Your task to perform on an android device: open app "Skype" (install if not already installed) Image 0: 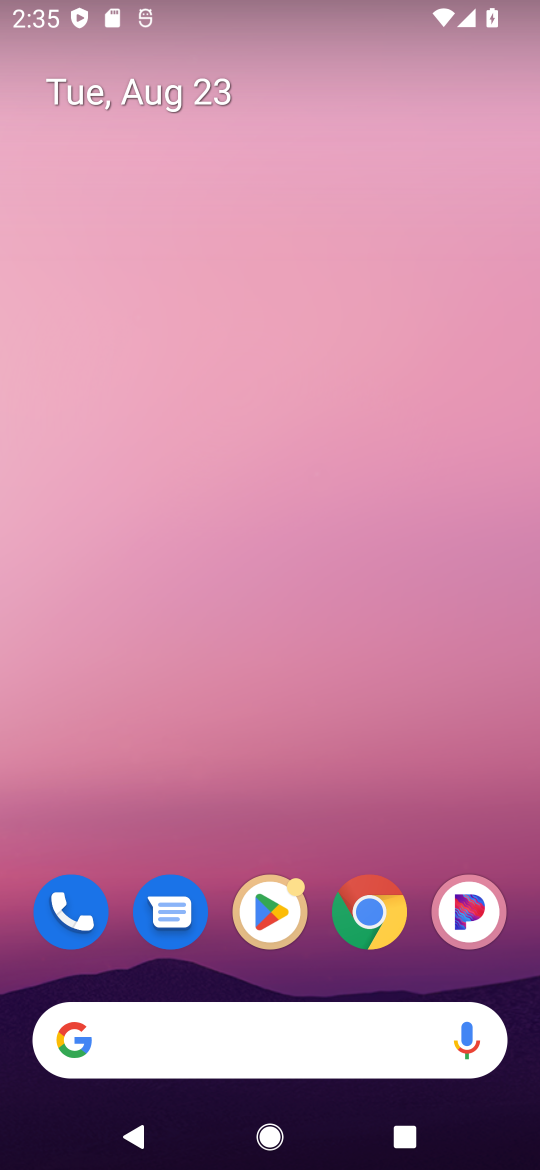
Step 0: drag from (182, 1071) to (250, 58)
Your task to perform on an android device: open app "Skype" (install if not already installed) Image 1: 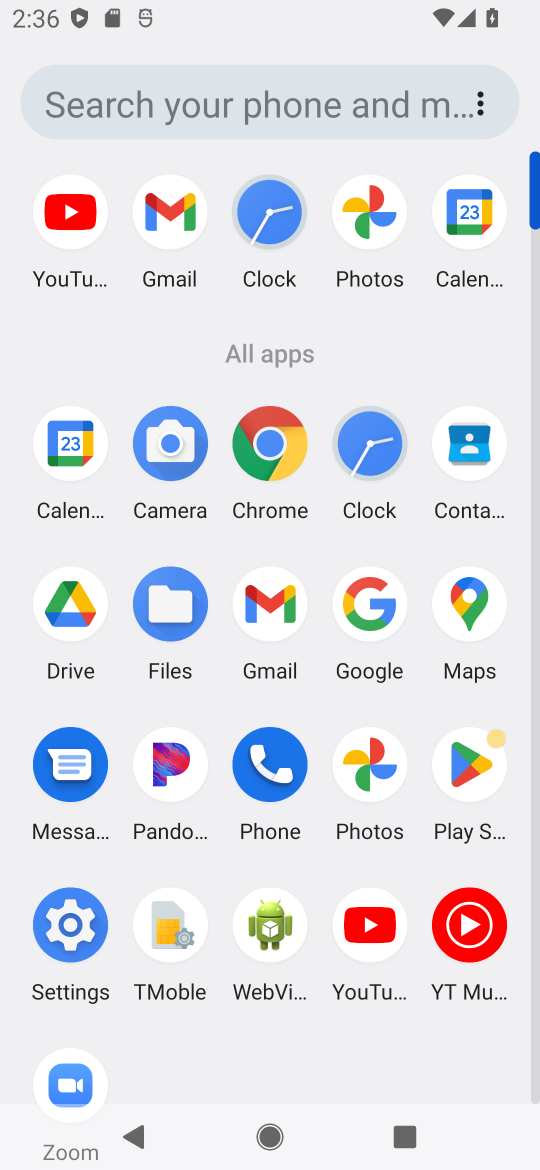
Step 1: click (468, 777)
Your task to perform on an android device: open app "Skype" (install if not already installed) Image 2: 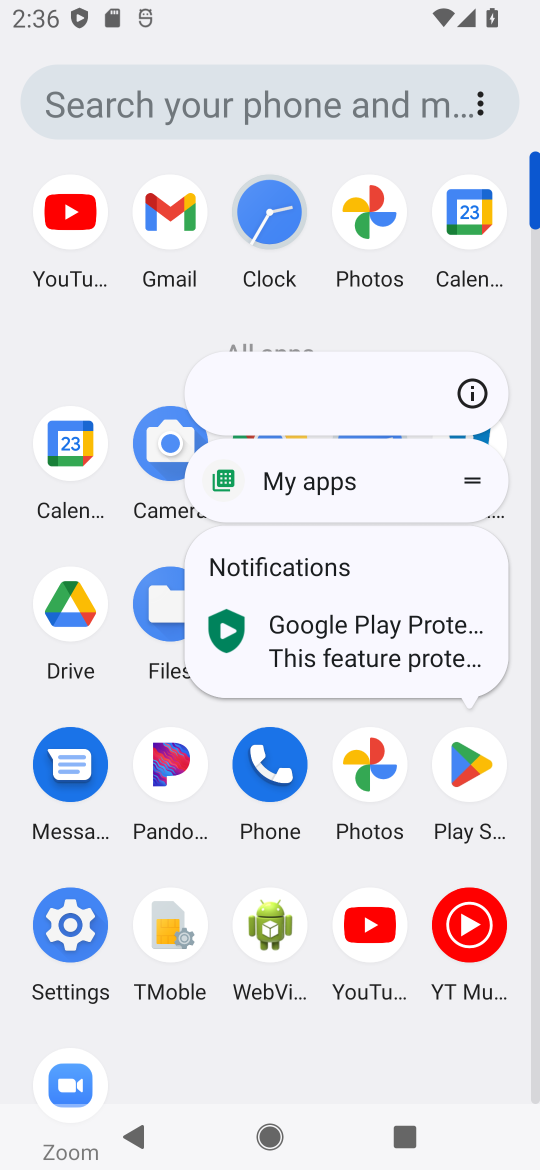
Step 2: click (468, 777)
Your task to perform on an android device: open app "Skype" (install if not already installed) Image 3: 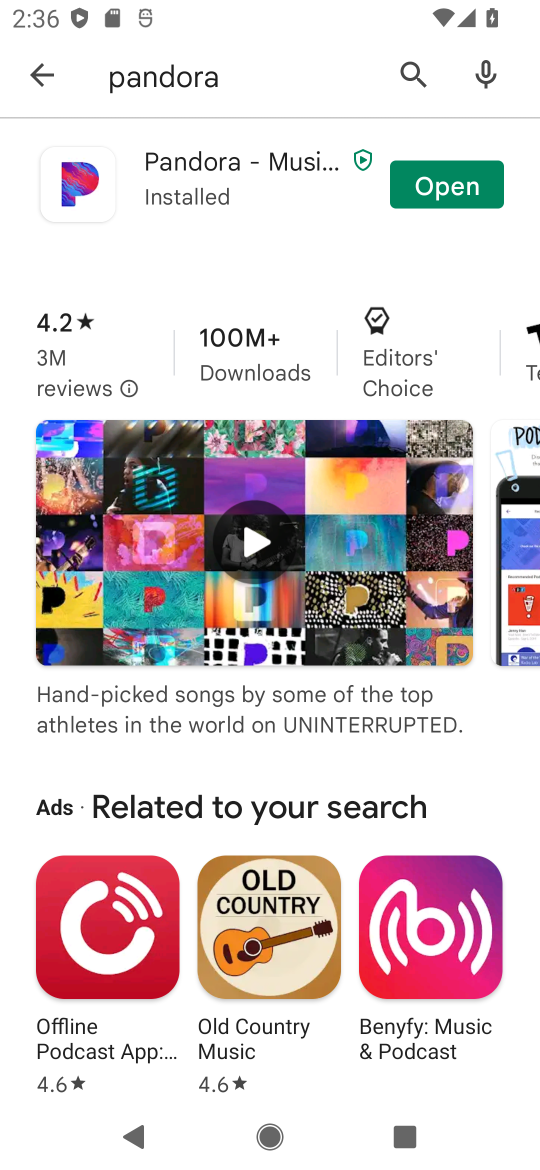
Step 3: click (408, 79)
Your task to perform on an android device: open app "Skype" (install if not already installed) Image 4: 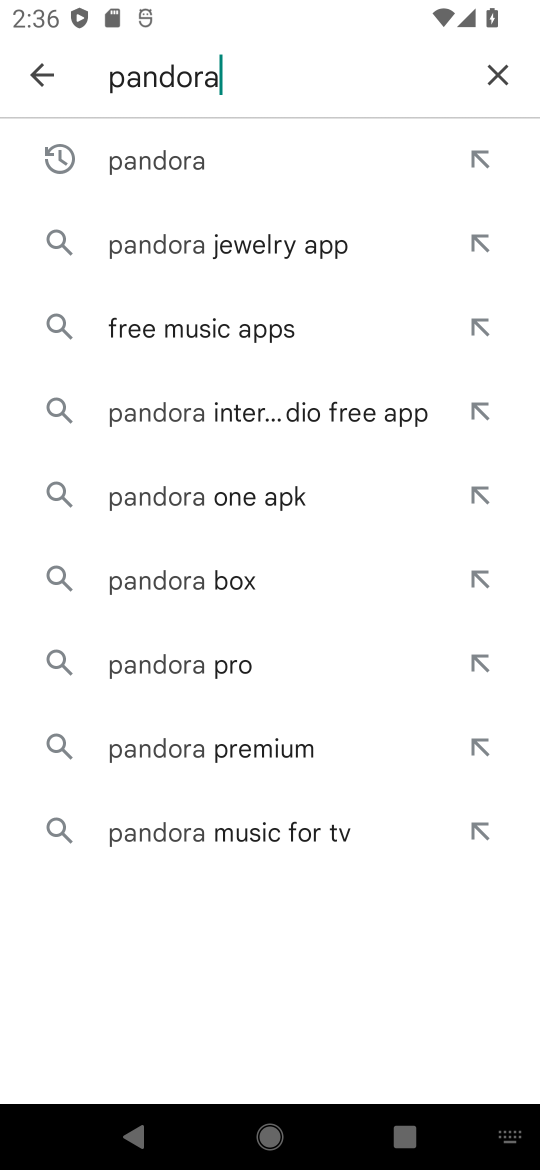
Step 4: click (496, 71)
Your task to perform on an android device: open app "Skype" (install if not already installed) Image 5: 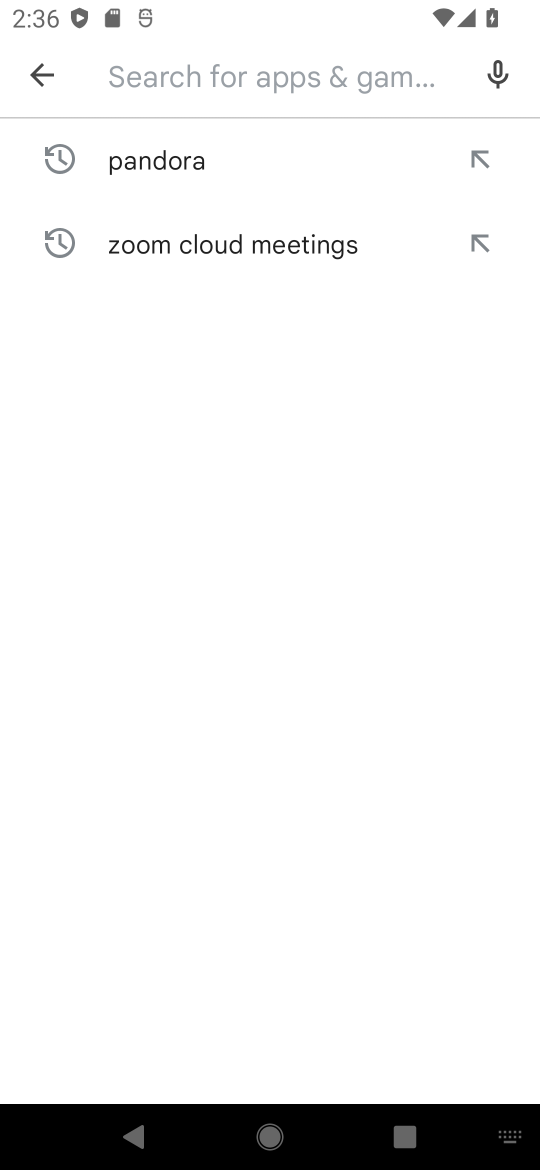
Step 5: type "Skype"
Your task to perform on an android device: open app "Skype" (install if not already installed) Image 6: 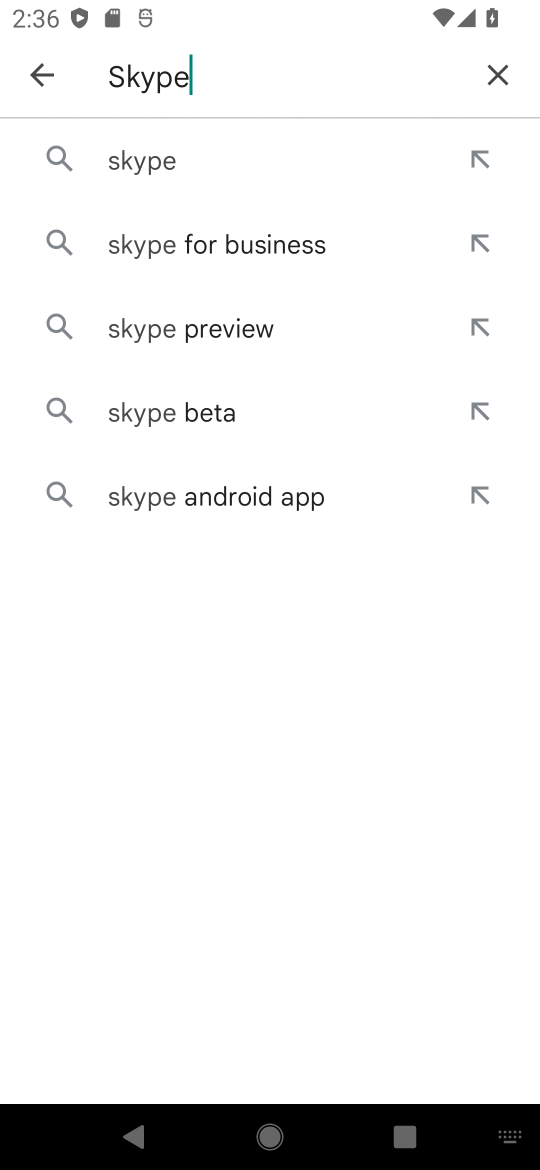
Step 6: click (172, 163)
Your task to perform on an android device: open app "Skype" (install if not already installed) Image 7: 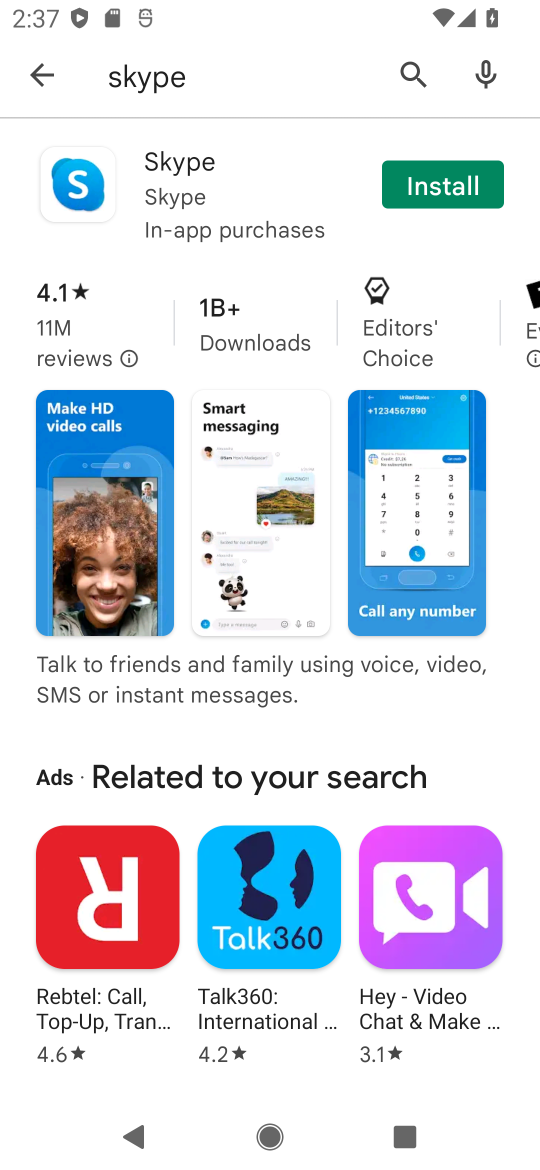
Step 7: click (448, 191)
Your task to perform on an android device: open app "Skype" (install if not already installed) Image 8: 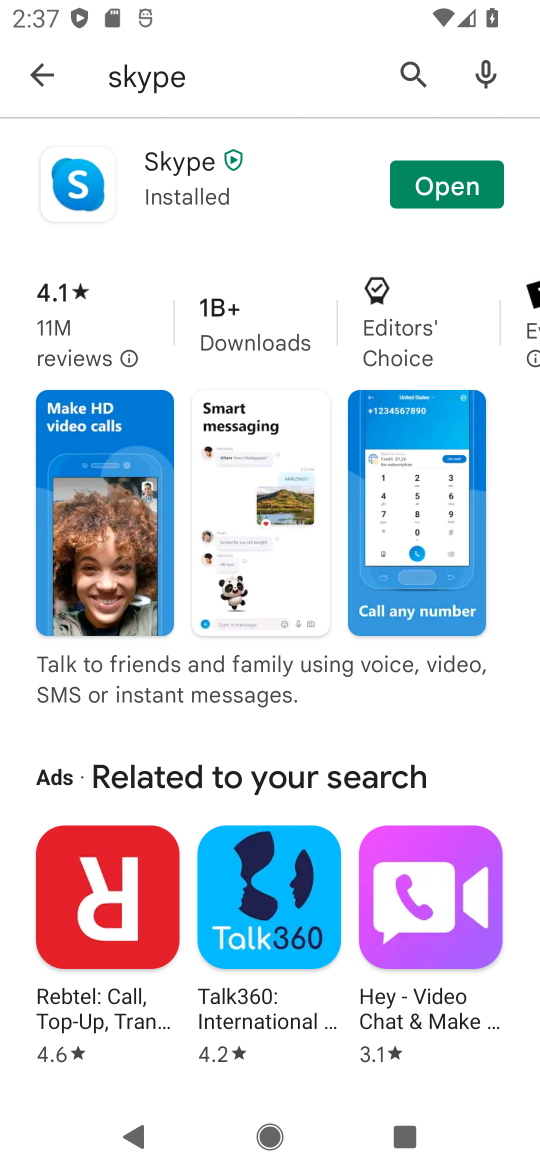
Step 8: click (457, 183)
Your task to perform on an android device: open app "Skype" (install if not already installed) Image 9: 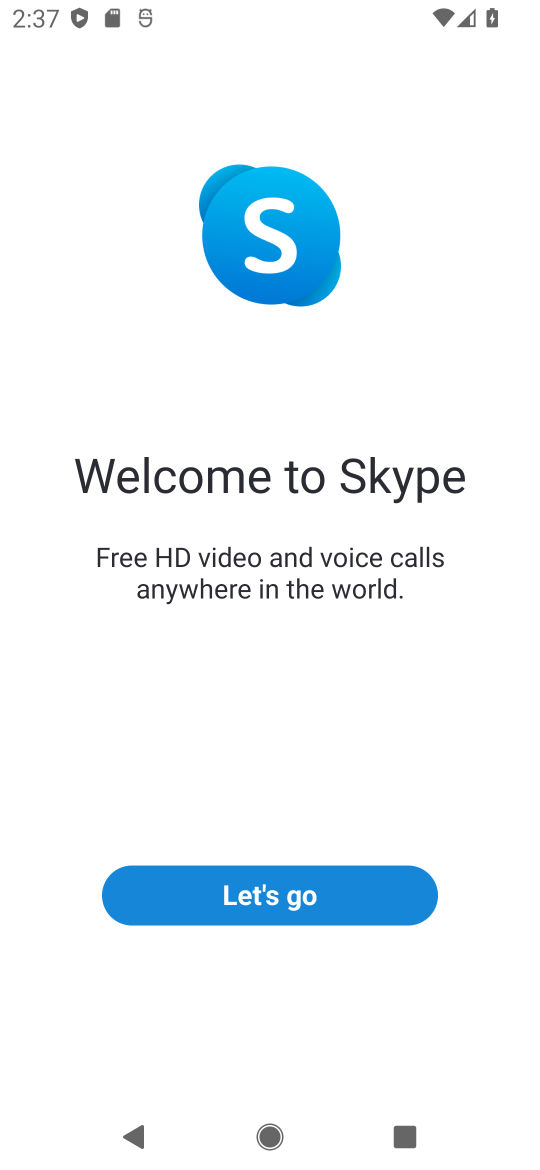
Step 9: task complete